Your task to perform on an android device: Open Chrome and go to settings Image 0: 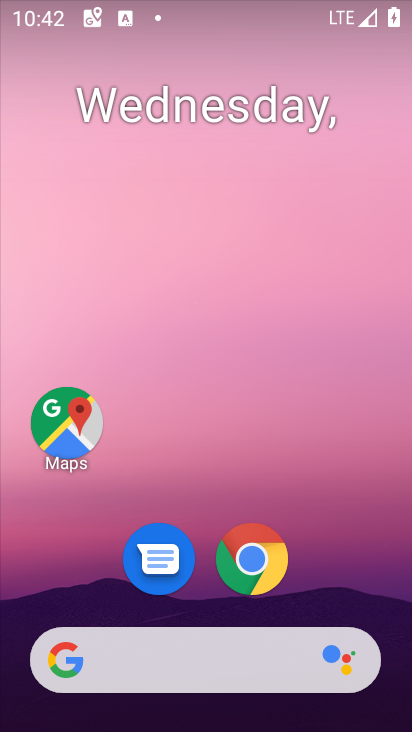
Step 0: drag from (210, 681) to (195, 322)
Your task to perform on an android device: Open Chrome and go to settings Image 1: 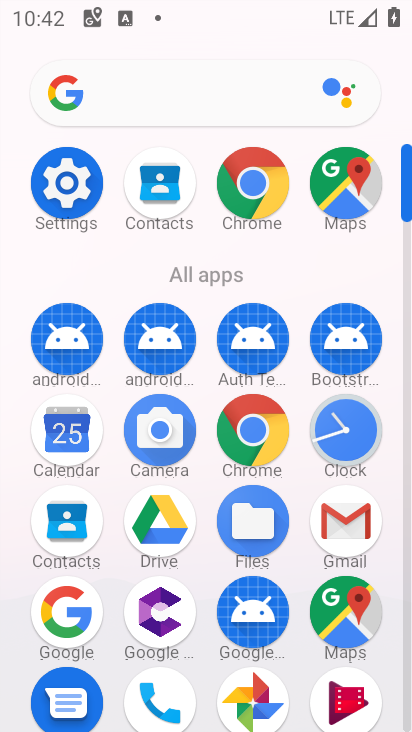
Step 1: click (254, 187)
Your task to perform on an android device: Open Chrome and go to settings Image 2: 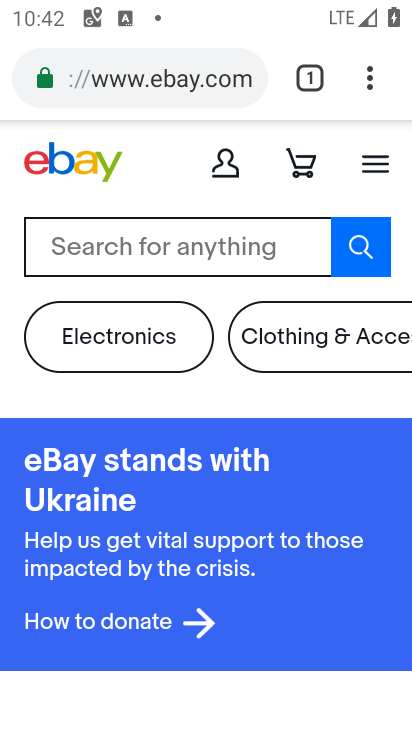
Step 2: click (370, 80)
Your task to perform on an android device: Open Chrome and go to settings Image 3: 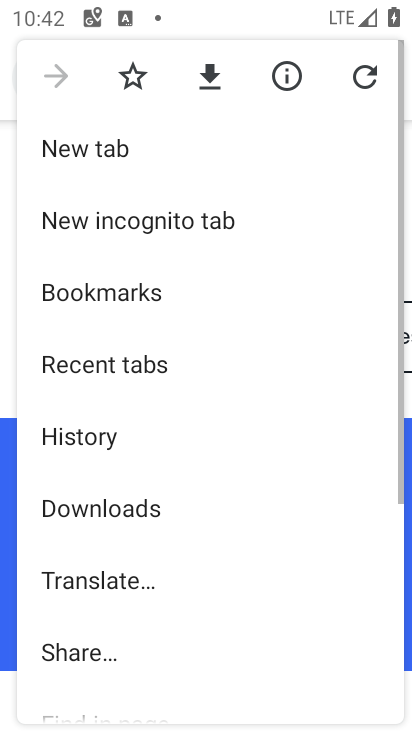
Step 3: drag from (176, 536) to (114, 83)
Your task to perform on an android device: Open Chrome and go to settings Image 4: 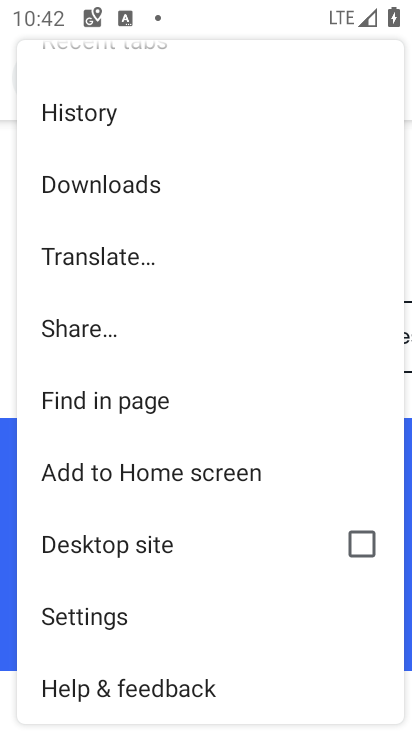
Step 4: click (112, 609)
Your task to perform on an android device: Open Chrome and go to settings Image 5: 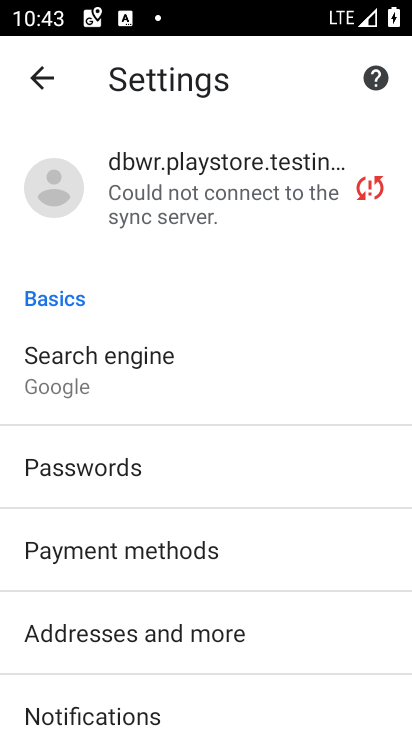
Step 5: task complete